Your task to perform on an android device: turn on showing notifications on the lock screen Image 0: 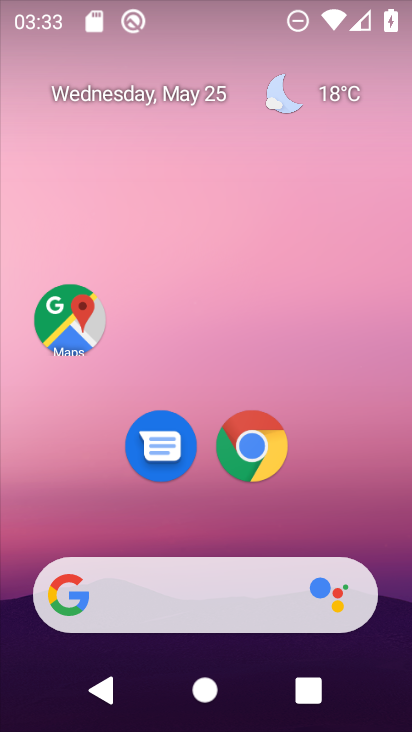
Step 0: drag from (199, 584) to (169, 168)
Your task to perform on an android device: turn on showing notifications on the lock screen Image 1: 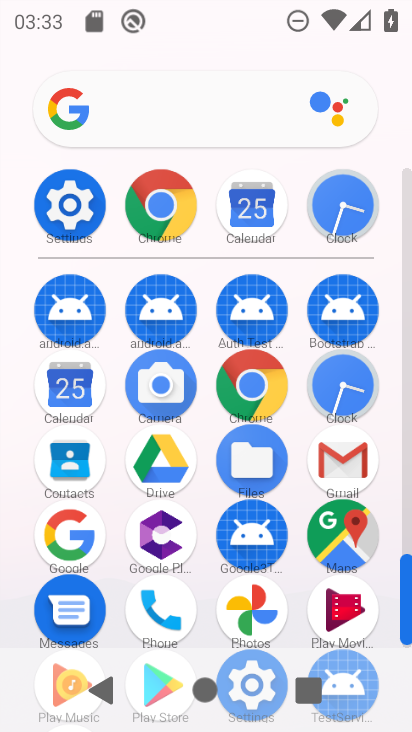
Step 1: click (68, 218)
Your task to perform on an android device: turn on showing notifications on the lock screen Image 2: 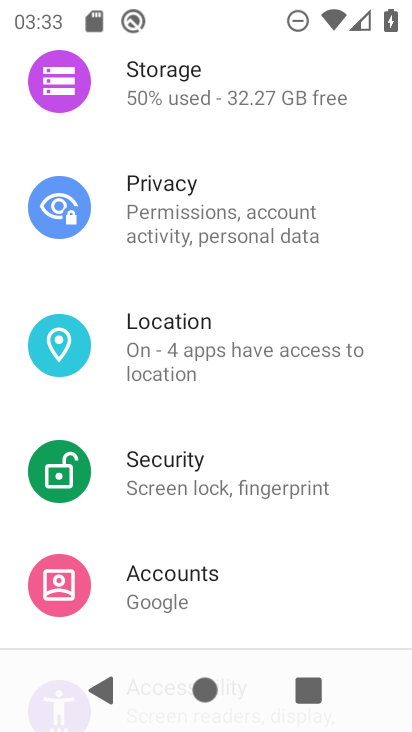
Step 2: drag from (156, 209) to (167, 583)
Your task to perform on an android device: turn on showing notifications on the lock screen Image 3: 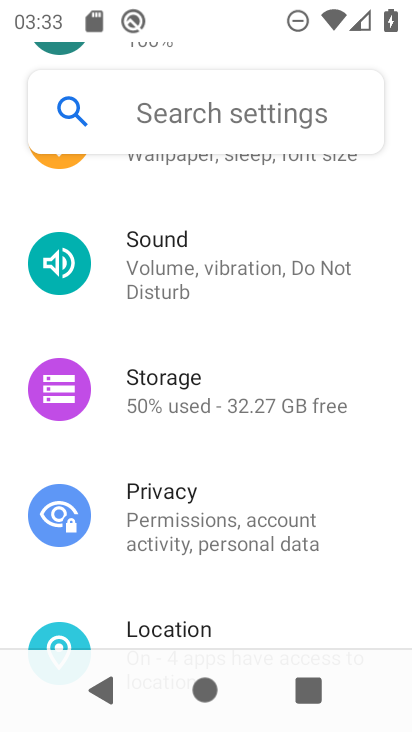
Step 3: drag from (180, 228) to (196, 507)
Your task to perform on an android device: turn on showing notifications on the lock screen Image 4: 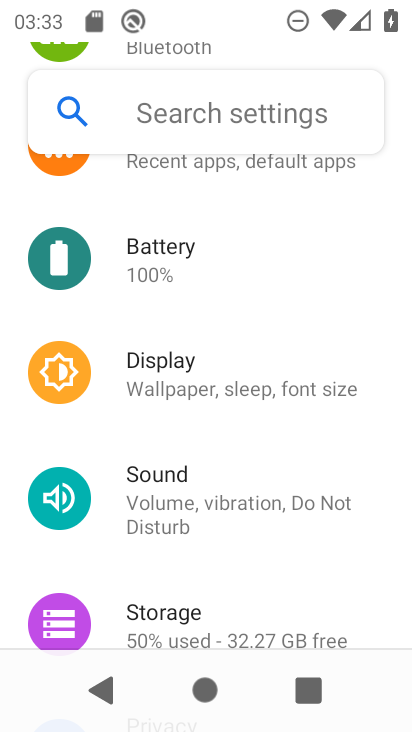
Step 4: drag from (154, 286) to (182, 593)
Your task to perform on an android device: turn on showing notifications on the lock screen Image 5: 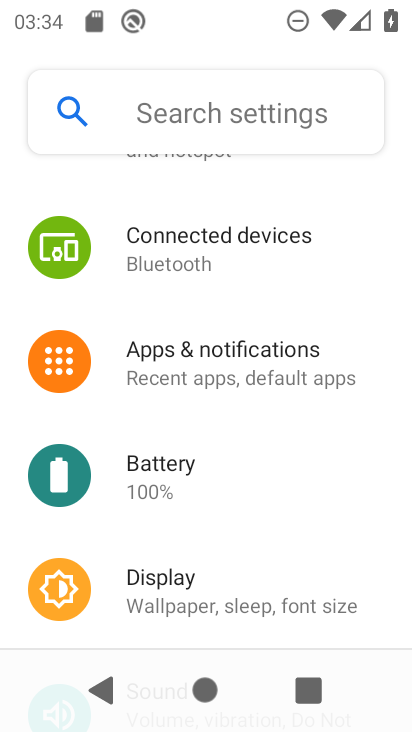
Step 5: click (224, 373)
Your task to perform on an android device: turn on showing notifications on the lock screen Image 6: 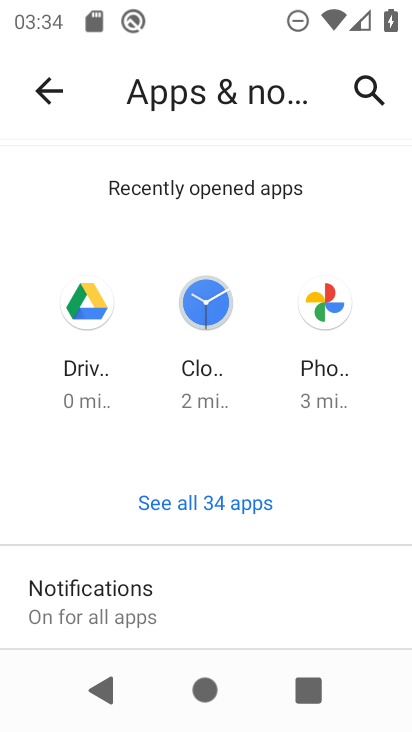
Step 6: drag from (221, 606) to (255, 205)
Your task to perform on an android device: turn on showing notifications on the lock screen Image 7: 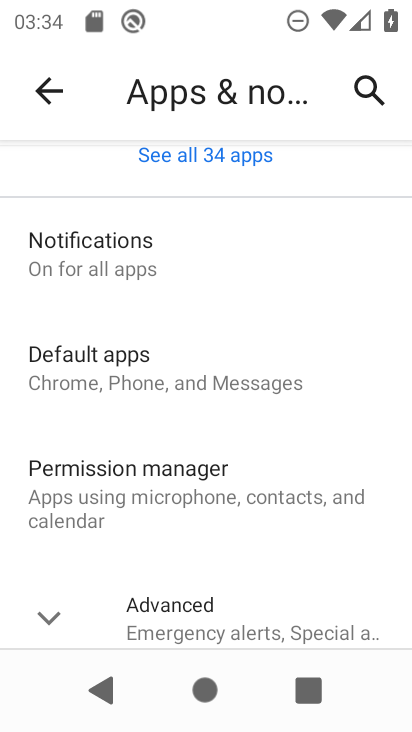
Step 7: click (128, 263)
Your task to perform on an android device: turn on showing notifications on the lock screen Image 8: 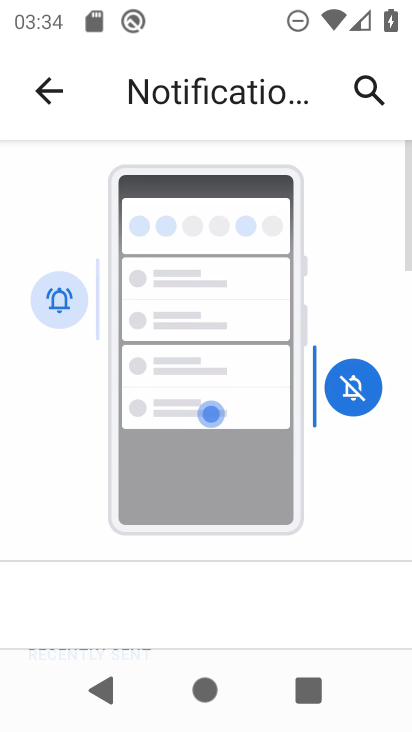
Step 8: drag from (210, 618) to (173, 198)
Your task to perform on an android device: turn on showing notifications on the lock screen Image 9: 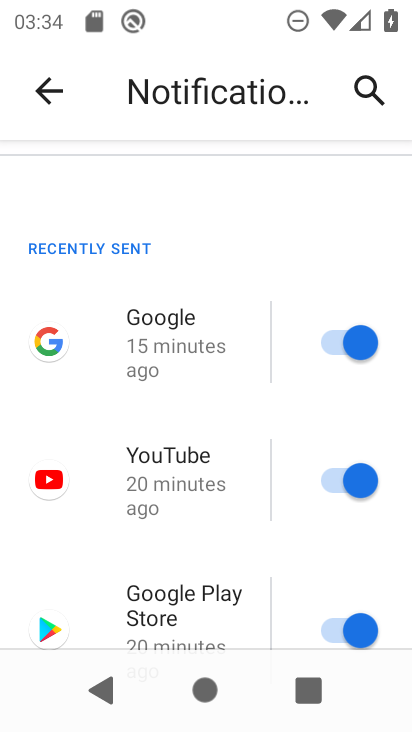
Step 9: drag from (198, 516) to (132, 220)
Your task to perform on an android device: turn on showing notifications on the lock screen Image 10: 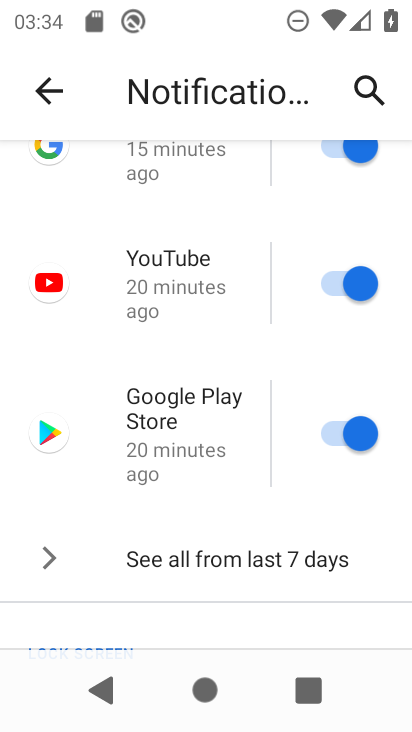
Step 10: drag from (175, 564) to (160, 110)
Your task to perform on an android device: turn on showing notifications on the lock screen Image 11: 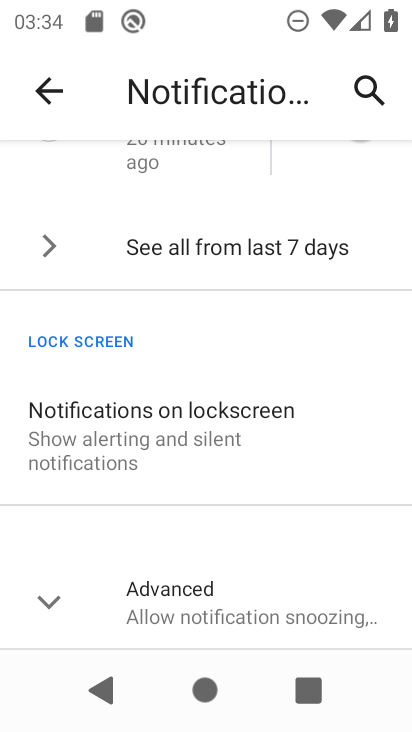
Step 11: click (221, 426)
Your task to perform on an android device: turn on showing notifications on the lock screen Image 12: 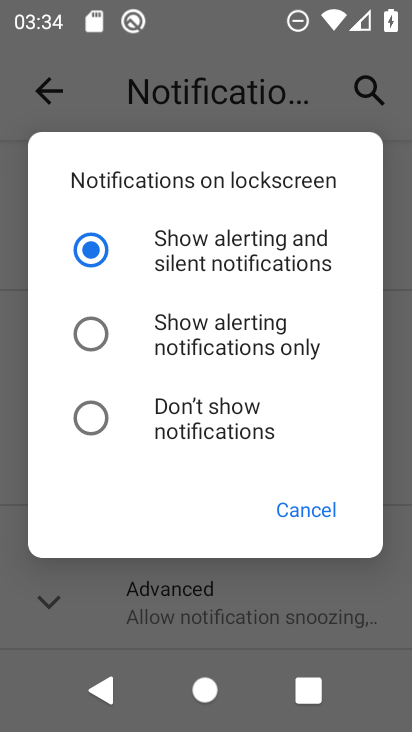
Step 12: click (181, 269)
Your task to perform on an android device: turn on showing notifications on the lock screen Image 13: 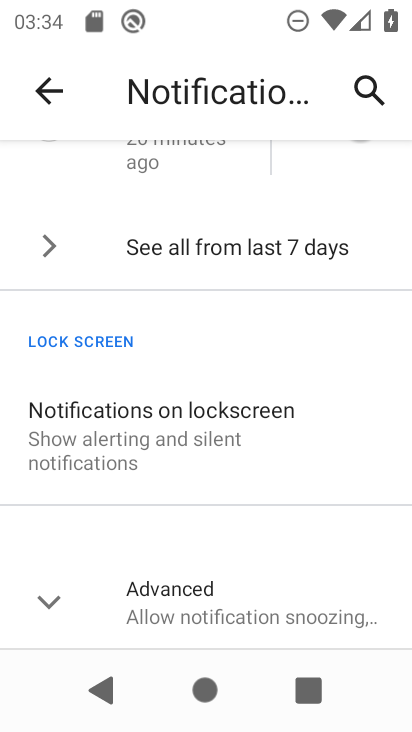
Step 13: task complete